Your task to perform on an android device: check android version Image 0: 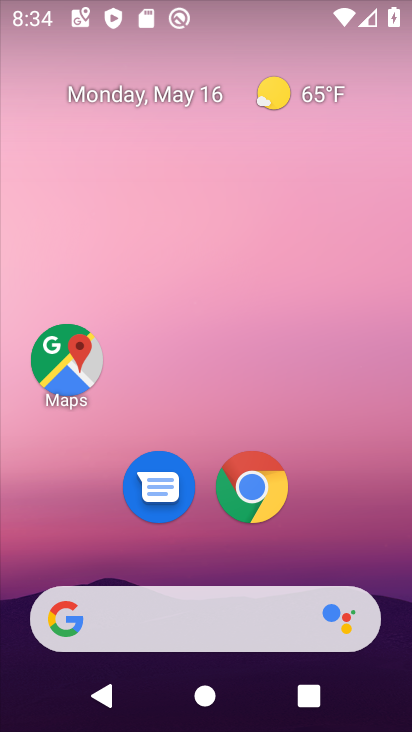
Step 0: drag from (368, 546) to (342, 159)
Your task to perform on an android device: check android version Image 1: 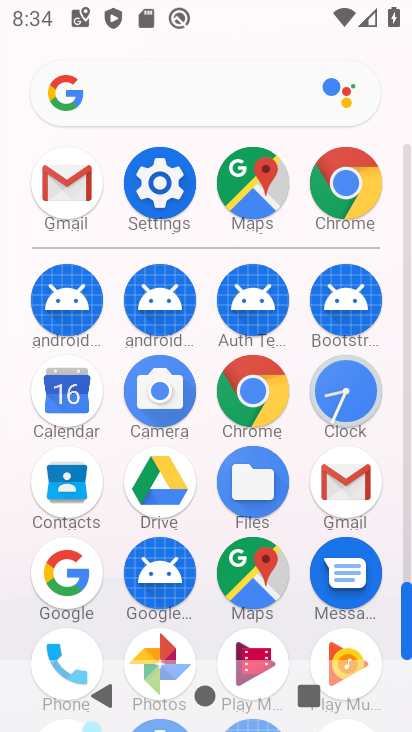
Step 1: click (179, 209)
Your task to perform on an android device: check android version Image 2: 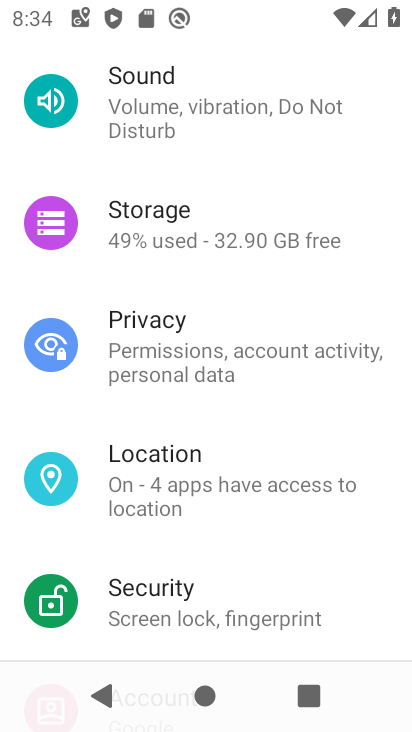
Step 2: drag from (347, 173) to (336, 316)
Your task to perform on an android device: check android version Image 3: 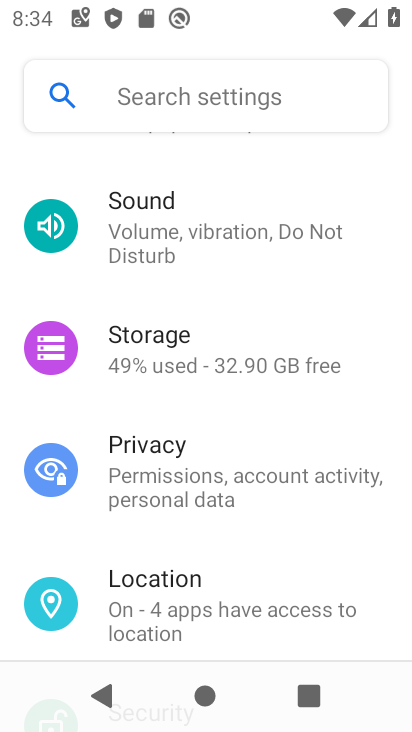
Step 3: drag from (363, 186) to (341, 417)
Your task to perform on an android device: check android version Image 4: 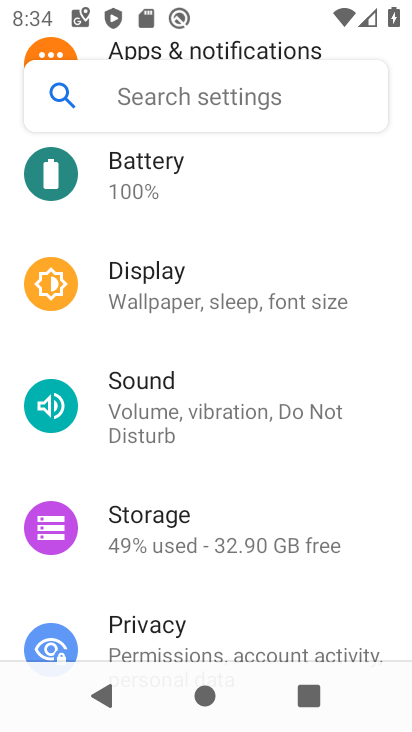
Step 4: drag from (370, 194) to (352, 393)
Your task to perform on an android device: check android version Image 5: 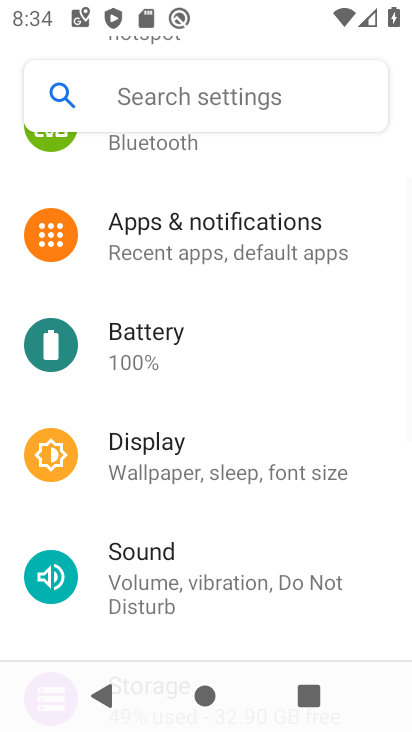
Step 5: drag from (361, 214) to (344, 381)
Your task to perform on an android device: check android version Image 6: 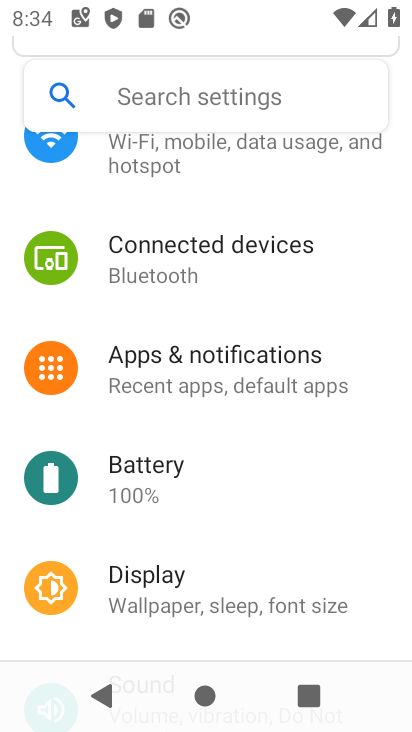
Step 6: drag from (361, 206) to (358, 348)
Your task to perform on an android device: check android version Image 7: 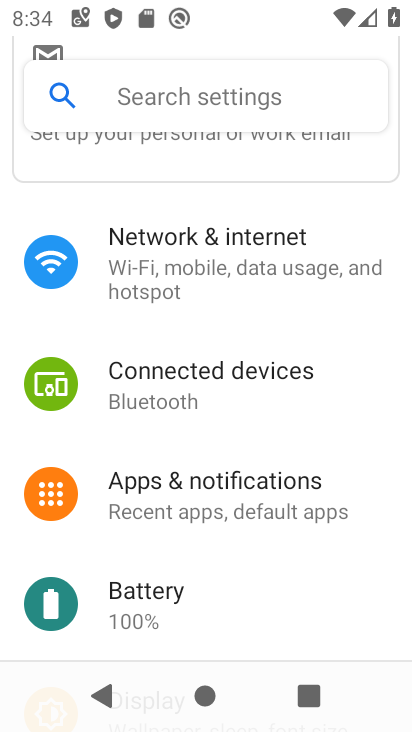
Step 7: drag from (362, 212) to (350, 380)
Your task to perform on an android device: check android version Image 8: 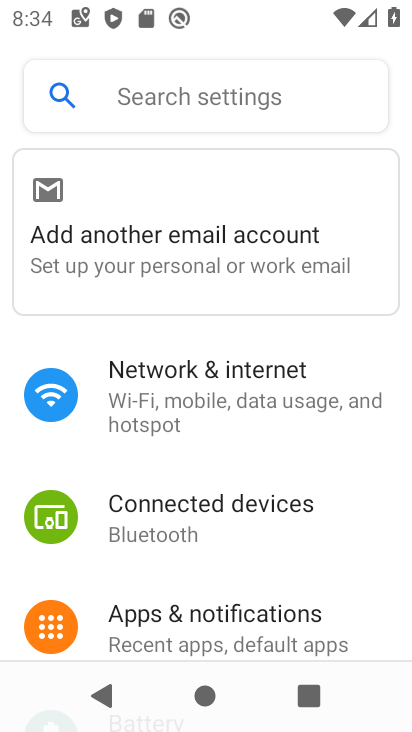
Step 8: drag from (352, 539) to (363, 339)
Your task to perform on an android device: check android version Image 9: 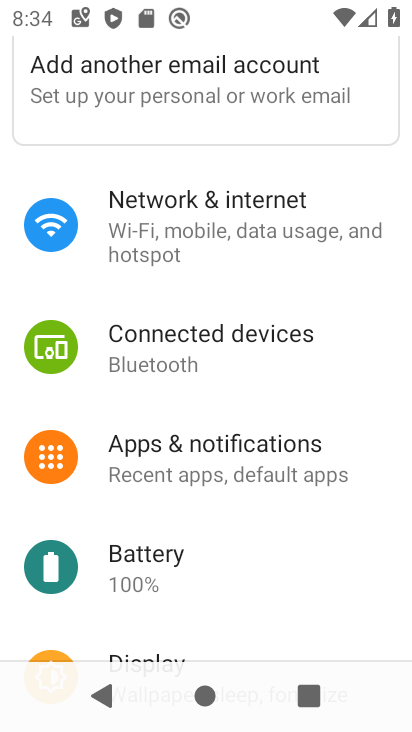
Step 9: drag from (329, 594) to (356, 398)
Your task to perform on an android device: check android version Image 10: 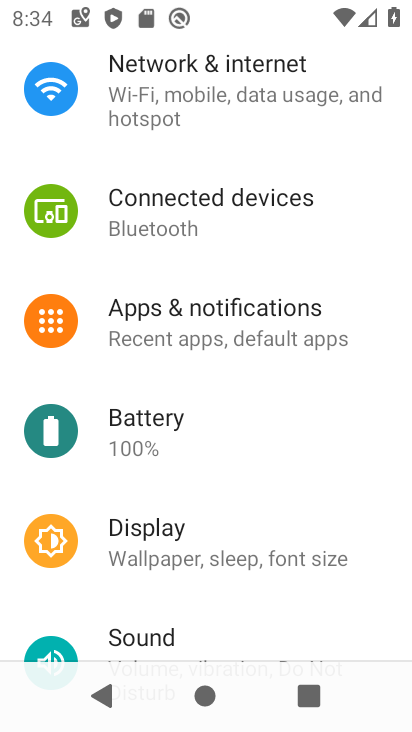
Step 10: drag from (331, 607) to (342, 430)
Your task to perform on an android device: check android version Image 11: 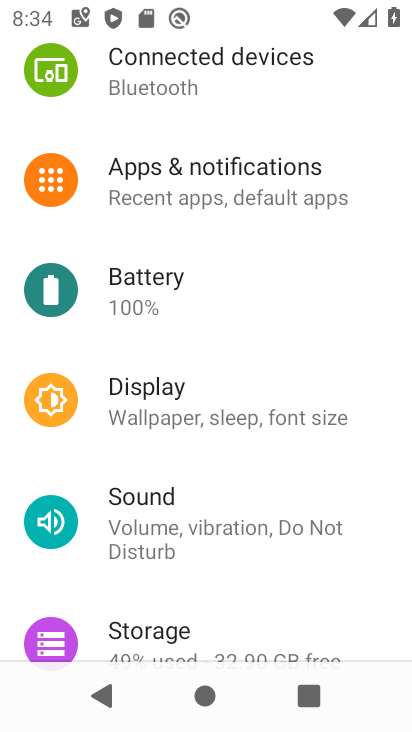
Step 11: drag from (313, 603) to (329, 424)
Your task to perform on an android device: check android version Image 12: 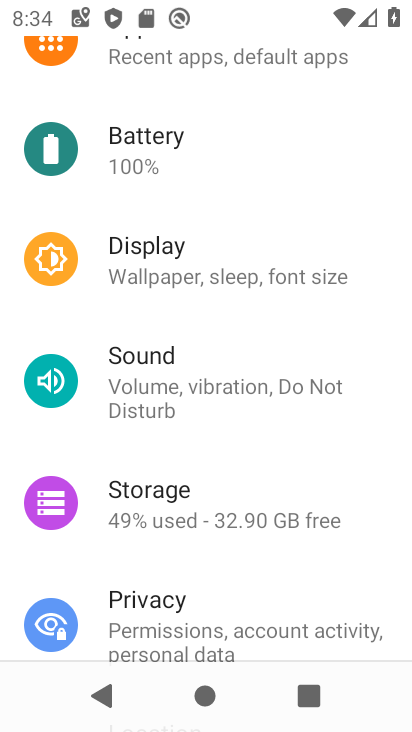
Step 12: drag from (292, 604) to (287, 437)
Your task to perform on an android device: check android version Image 13: 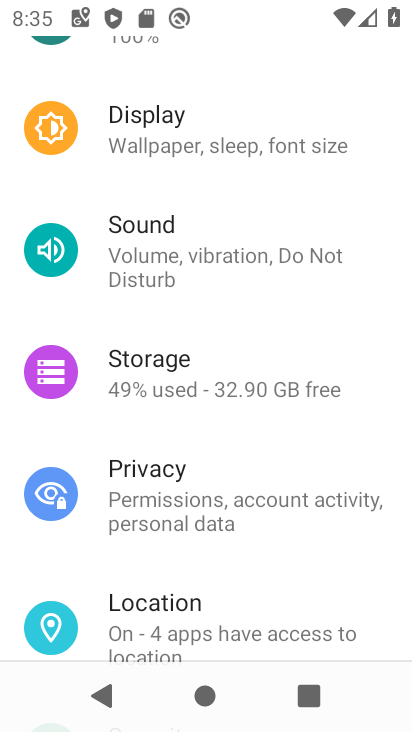
Step 13: drag from (269, 596) to (283, 445)
Your task to perform on an android device: check android version Image 14: 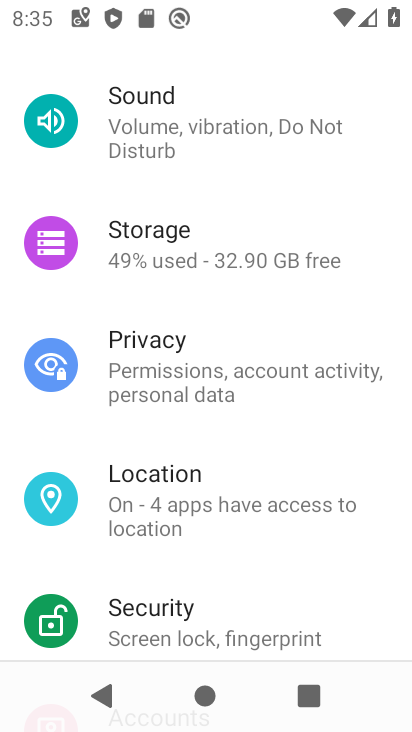
Step 14: drag from (268, 599) to (268, 421)
Your task to perform on an android device: check android version Image 15: 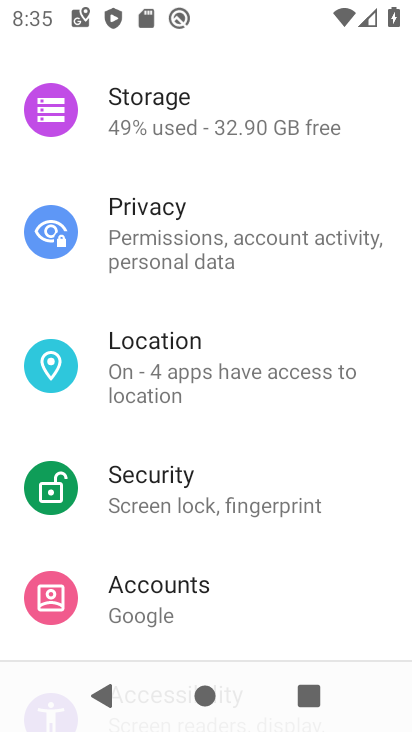
Step 15: drag from (310, 580) to (338, 409)
Your task to perform on an android device: check android version Image 16: 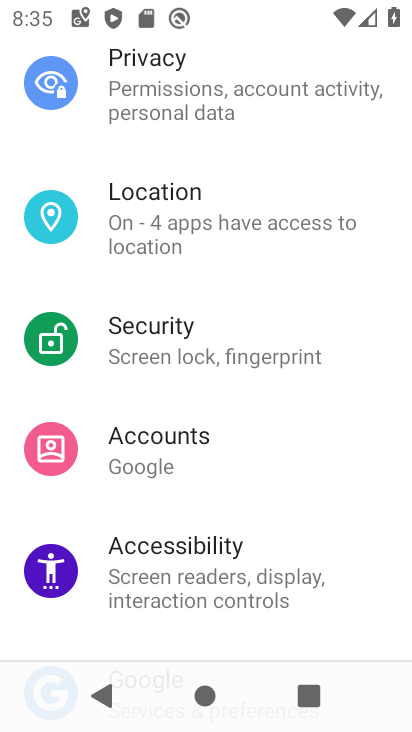
Step 16: drag from (342, 619) to (333, 457)
Your task to perform on an android device: check android version Image 17: 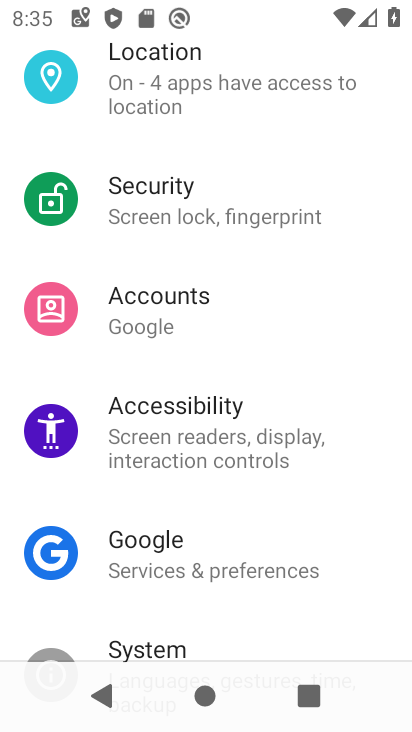
Step 17: drag from (308, 610) to (329, 462)
Your task to perform on an android device: check android version Image 18: 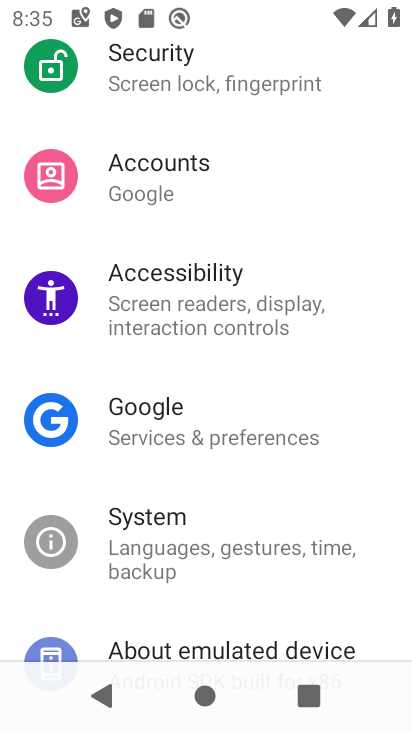
Step 18: click (287, 541)
Your task to perform on an android device: check android version Image 19: 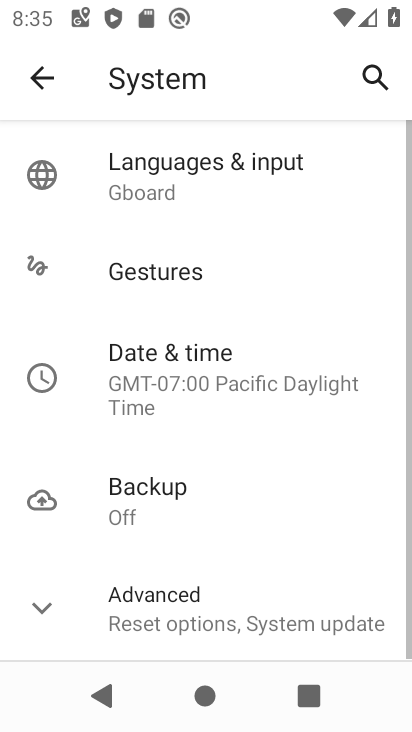
Step 19: click (206, 618)
Your task to perform on an android device: check android version Image 20: 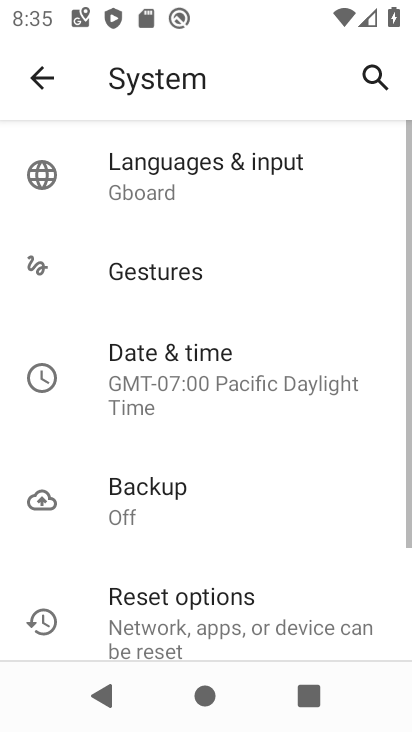
Step 20: drag from (286, 579) to (291, 446)
Your task to perform on an android device: check android version Image 21: 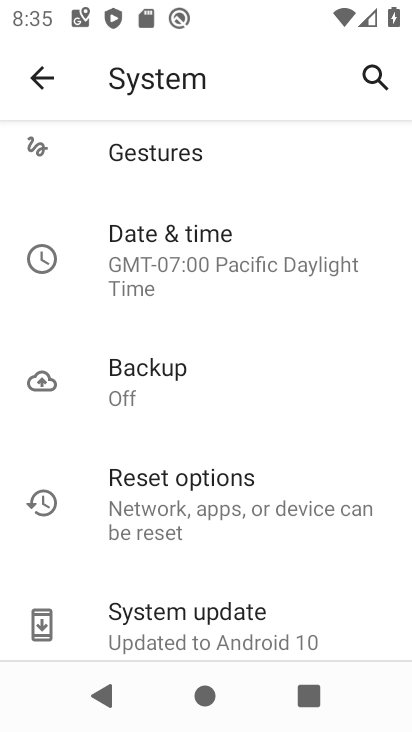
Step 21: drag from (298, 582) to (317, 443)
Your task to perform on an android device: check android version Image 22: 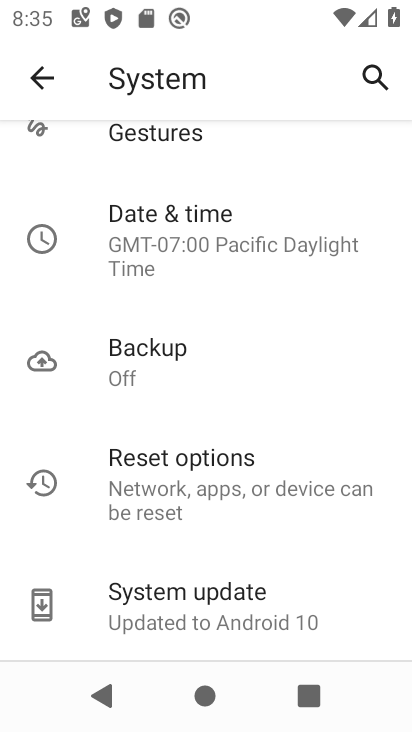
Step 22: click (230, 596)
Your task to perform on an android device: check android version Image 23: 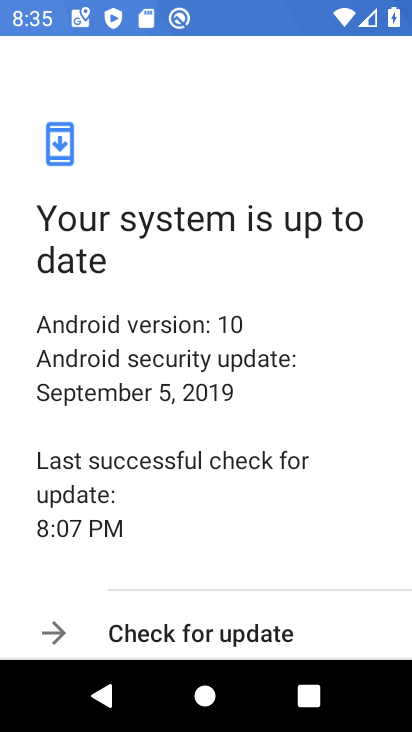
Step 23: task complete